Your task to perform on an android device: open app "DuckDuckGo Privacy Browser" (install if not already installed) and go to login screen Image 0: 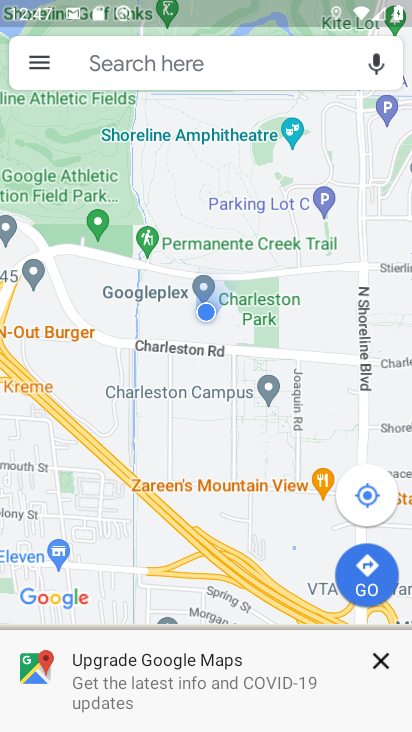
Step 0: press home button
Your task to perform on an android device: open app "DuckDuckGo Privacy Browser" (install if not already installed) and go to login screen Image 1: 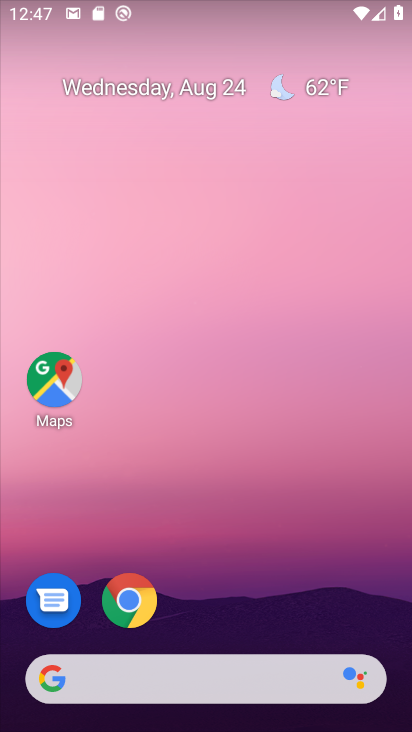
Step 1: drag from (238, 620) to (242, 176)
Your task to perform on an android device: open app "DuckDuckGo Privacy Browser" (install if not already installed) and go to login screen Image 2: 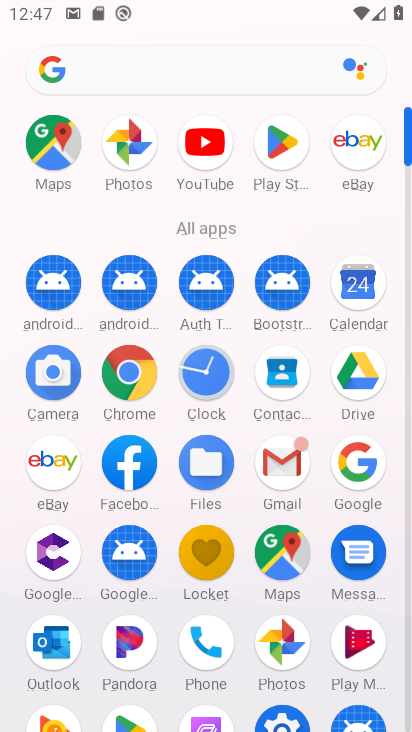
Step 2: click (283, 156)
Your task to perform on an android device: open app "DuckDuckGo Privacy Browser" (install if not already installed) and go to login screen Image 3: 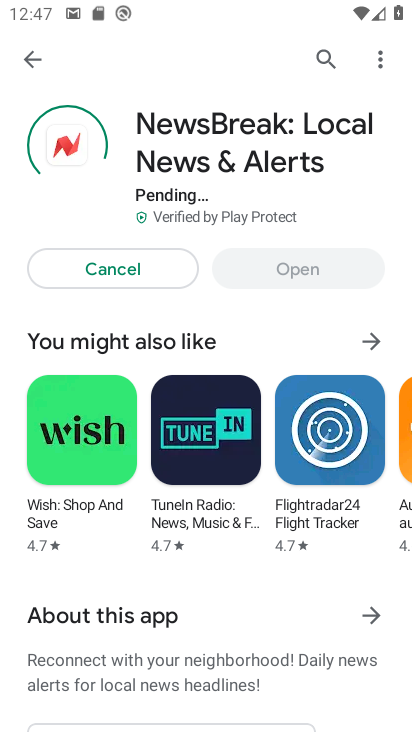
Step 3: click (320, 67)
Your task to perform on an android device: open app "DuckDuckGo Privacy Browser" (install if not already installed) and go to login screen Image 4: 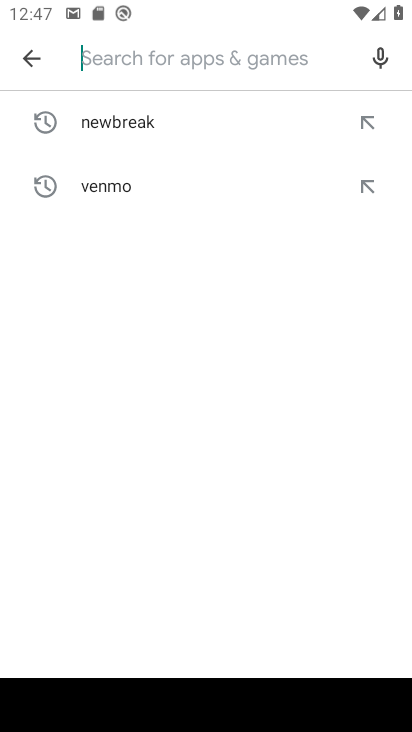
Step 4: type "duck duck go"
Your task to perform on an android device: open app "DuckDuckGo Privacy Browser" (install if not already installed) and go to login screen Image 5: 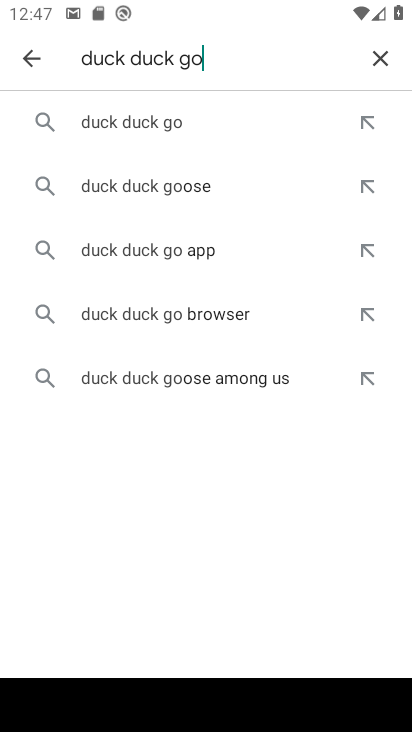
Step 5: click (135, 113)
Your task to perform on an android device: open app "DuckDuckGo Privacy Browser" (install if not already installed) and go to login screen Image 6: 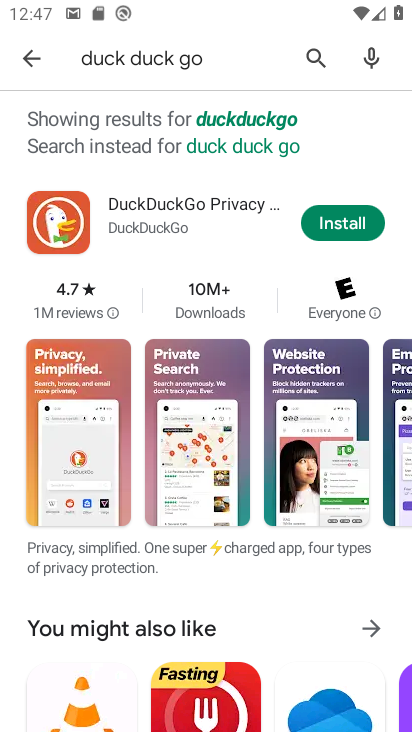
Step 6: click (330, 226)
Your task to perform on an android device: open app "DuckDuckGo Privacy Browser" (install if not already installed) and go to login screen Image 7: 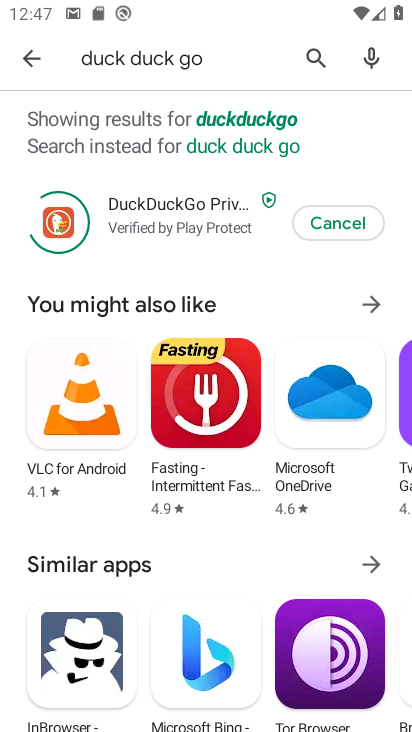
Step 7: task complete